Your task to perform on an android device: turn on translation in the chrome app Image 0: 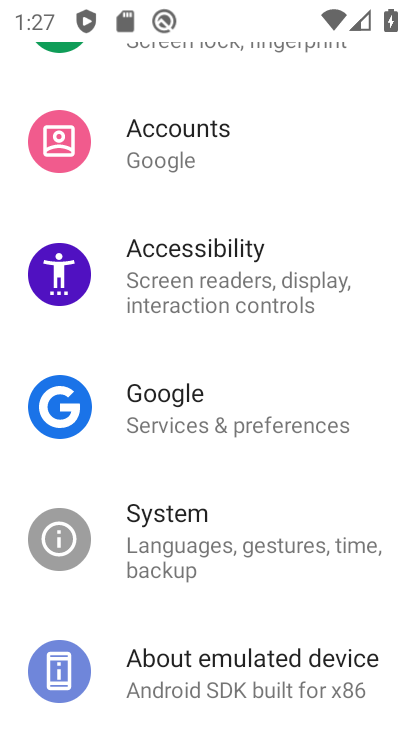
Step 0: drag from (373, 570) to (351, 323)
Your task to perform on an android device: turn on translation in the chrome app Image 1: 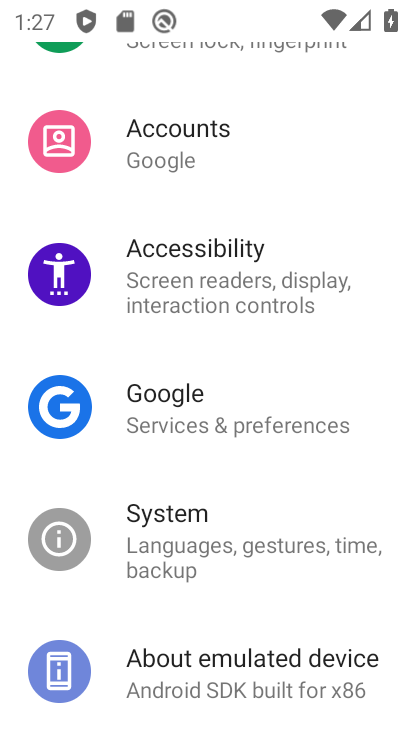
Step 1: press home button
Your task to perform on an android device: turn on translation in the chrome app Image 2: 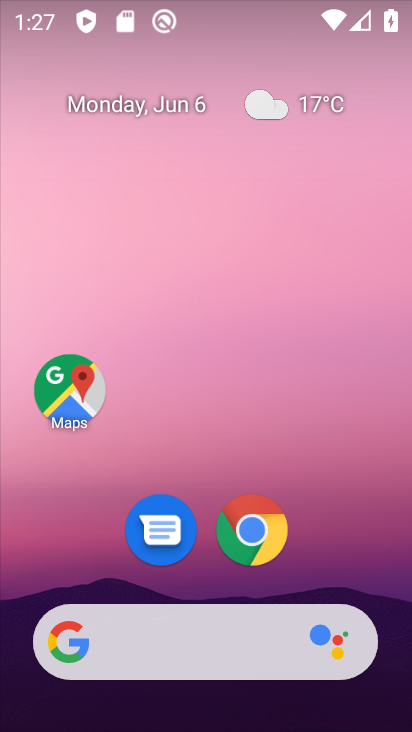
Step 2: click (250, 535)
Your task to perform on an android device: turn on translation in the chrome app Image 3: 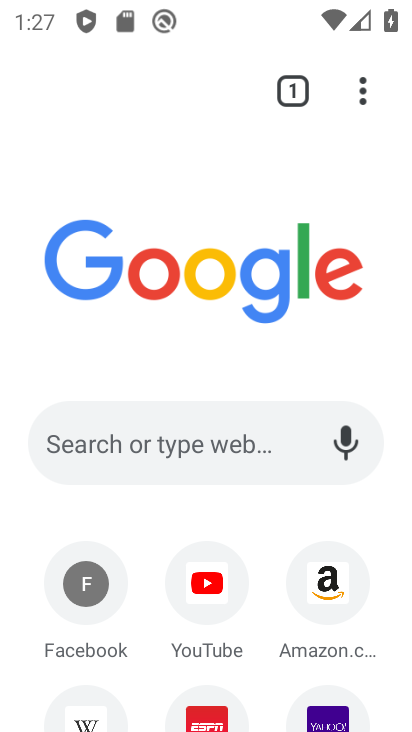
Step 3: click (362, 98)
Your task to perform on an android device: turn on translation in the chrome app Image 4: 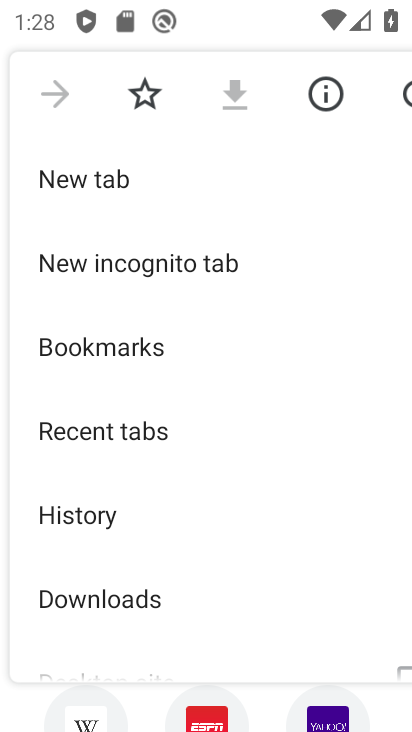
Step 4: drag from (169, 589) to (119, 313)
Your task to perform on an android device: turn on translation in the chrome app Image 5: 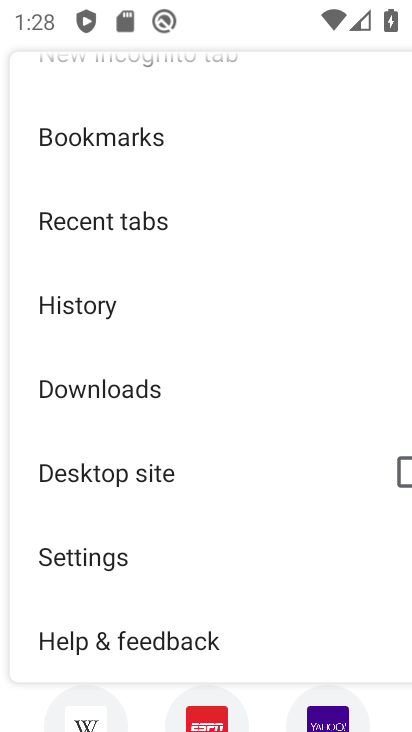
Step 5: drag from (100, 606) to (157, 246)
Your task to perform on an android device: turn on translation in the chrome app Image 6: 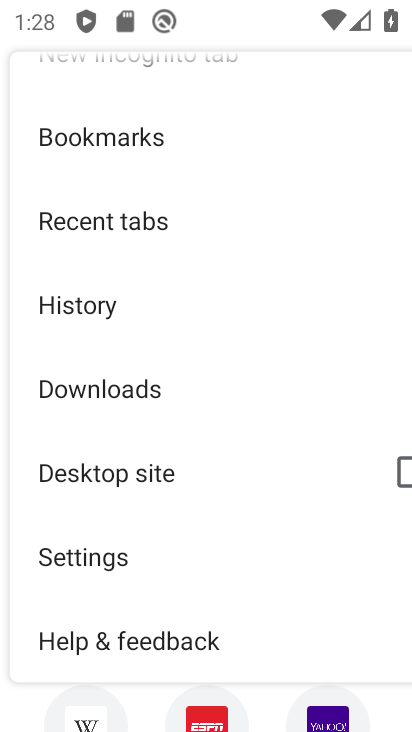
Step 6: click (133, 545)
Your task to perform on an android device: turn on translation in the chrome app Image 7: 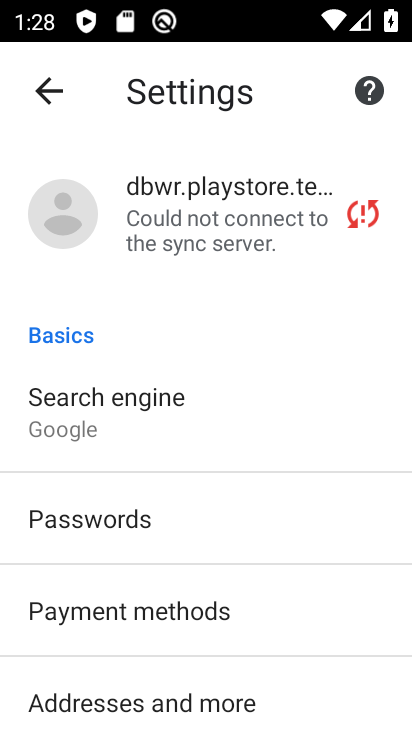
Step 7: drag from (205, 667) to (132, 261)
Your task to perform on an android device: turn on translation in the chrome app Image 8: 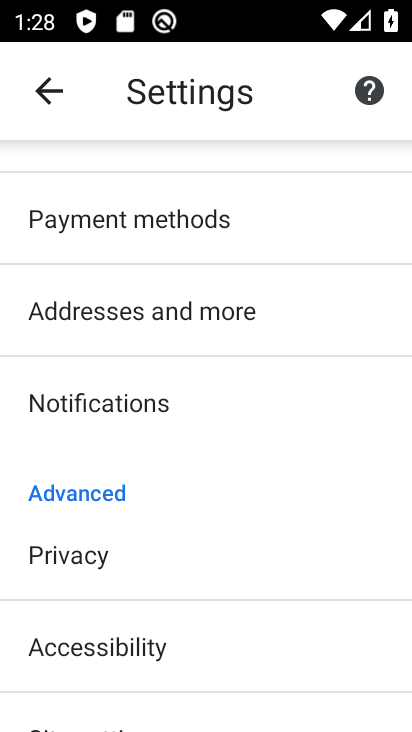
Step 8: drag from (160, 583) to (185, 340)
Your task to perform on an android device: turn on translation in the chrome app Image 9: 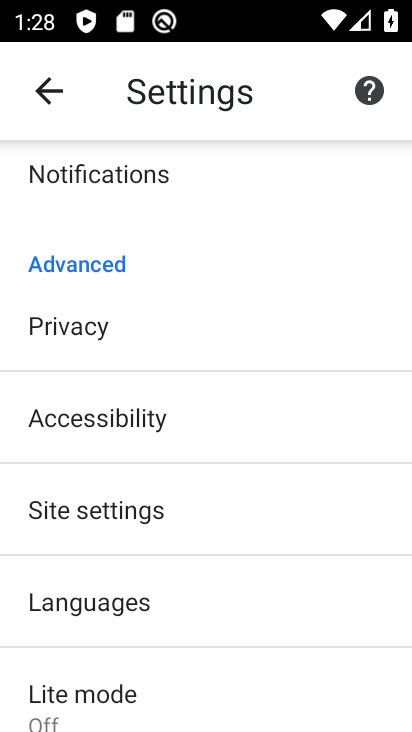
Step 9: click (175, 581)
Your task to perform on an android device: turn on translation in the chrome app Image 10: 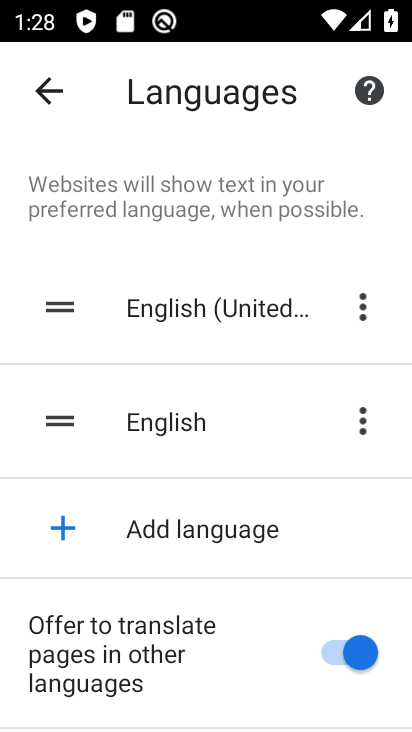
Step 10: task complete